Your task to perform on an android device: add a contact Image 0: 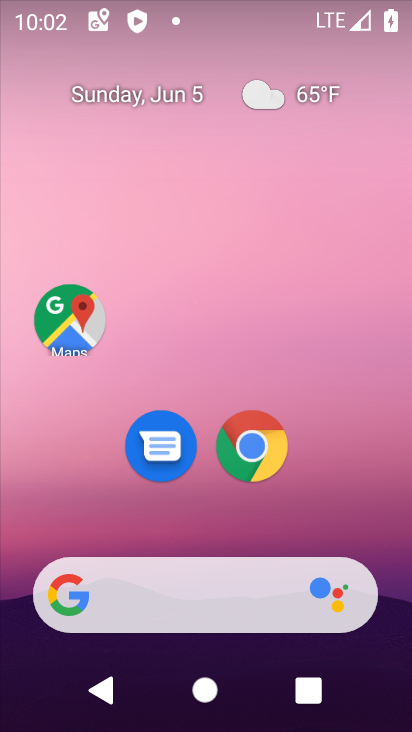
Step 0: drag from (191, 540) to (199, 120)
Your task to perform on an android device: add a contact Image 1: 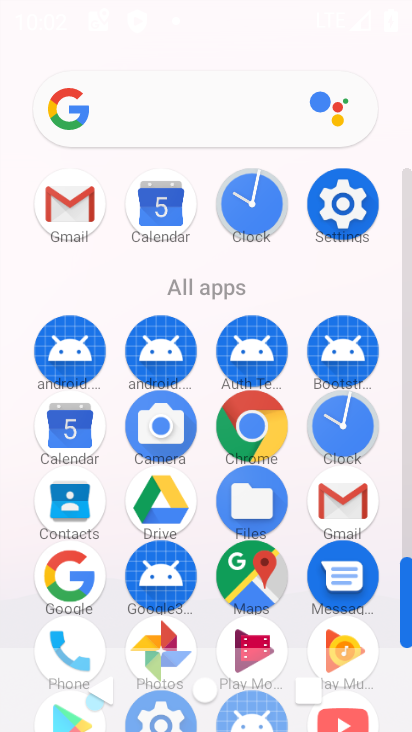
Step 1: click (72, 506)
Your task to perform on an android device: add a contact Image 2: 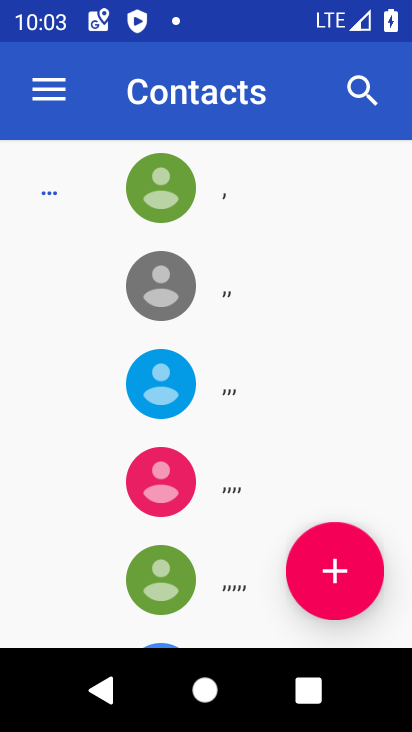
Step 2: click (315, 574)
Your task to perform on an android device: add a contact Image 3: 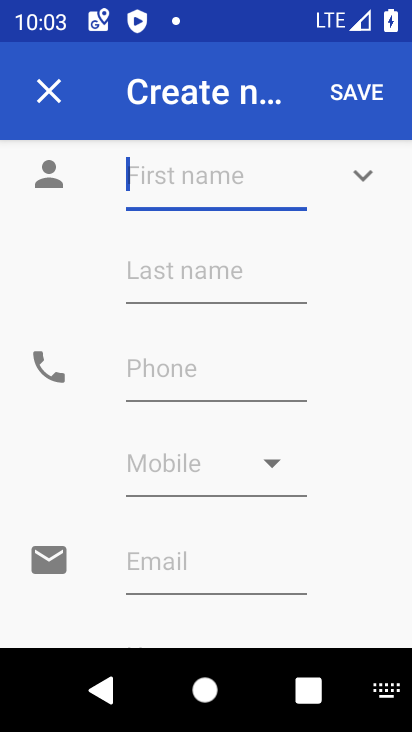
Step 3: type "Noorie"
Your task to perform on an android device: add a contact Image 4: 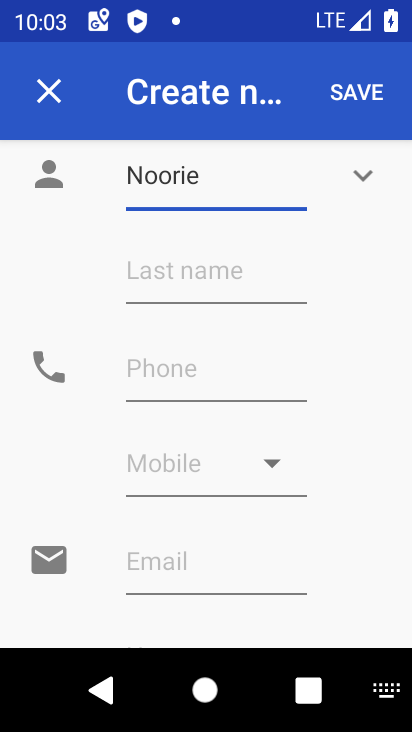
Step 4: click (193, 271)
Your task to perform on an android device: add a contact Image 5: 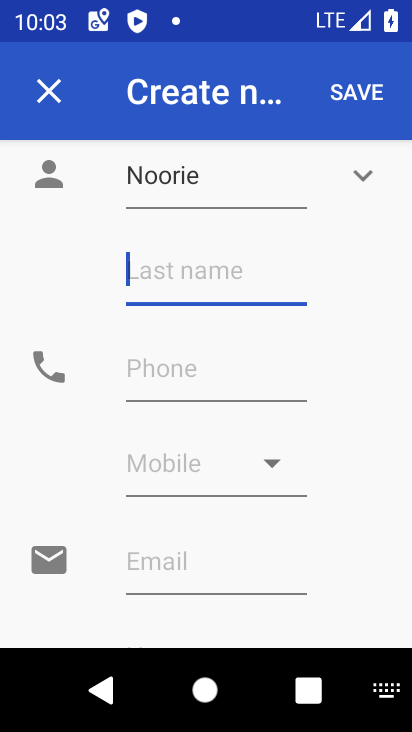
Step 5: type "sharma"
Your task to perform on an android device: add a contact Image 6: 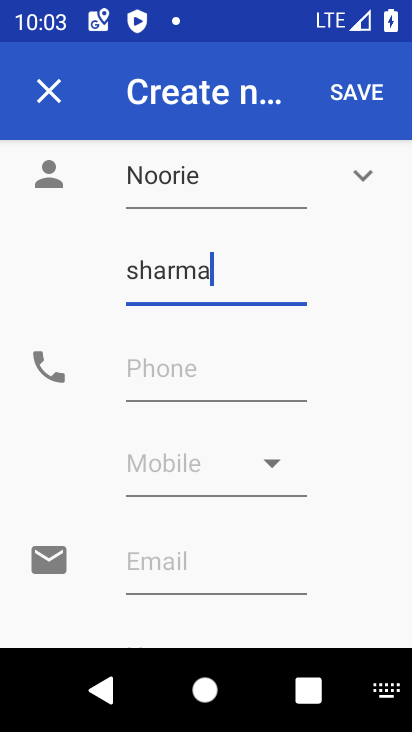
Step 6: click (141, 378)
Your task to perform on an android device: add a contact Image 7: 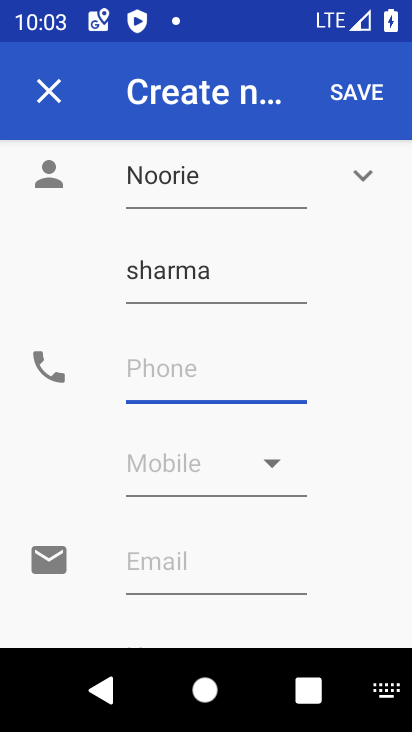
Step 7: type "9099909988"
Your task to perform on an android device: add a contact Image 8: 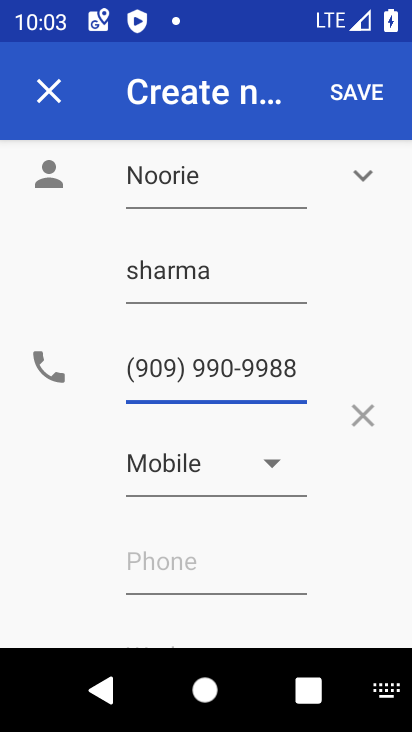
Step 8: click (345, 99)
Your task to perform on an android device: add a contact Image 9: 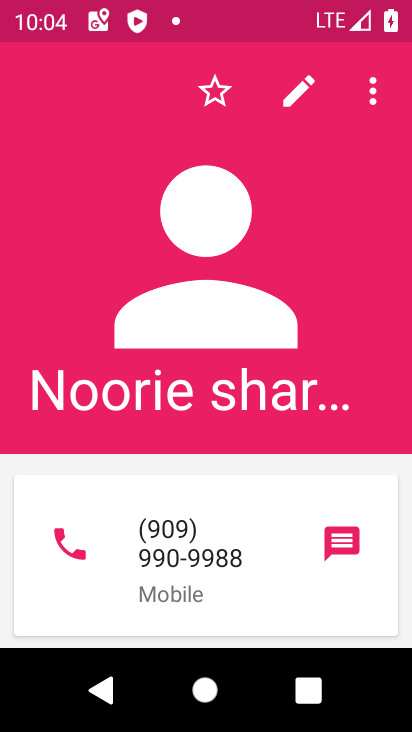
Step 9: task complete